Your task to perform on an android device: Go to display settings Image 0: 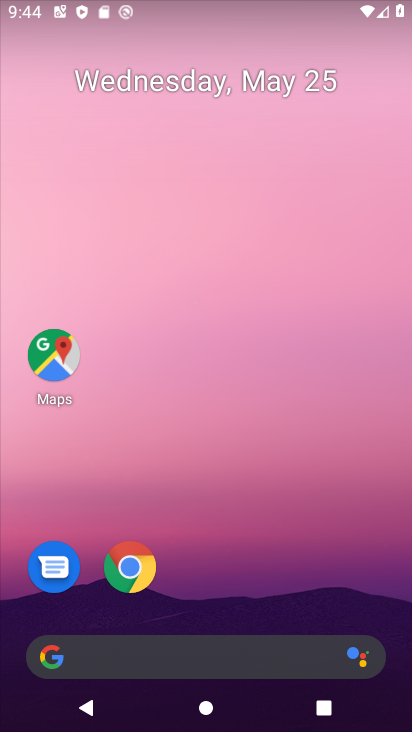
Step 0: drag from (328, 588) to (363, 23)
Your task to perform on an android device: Go to display settings Image 1: 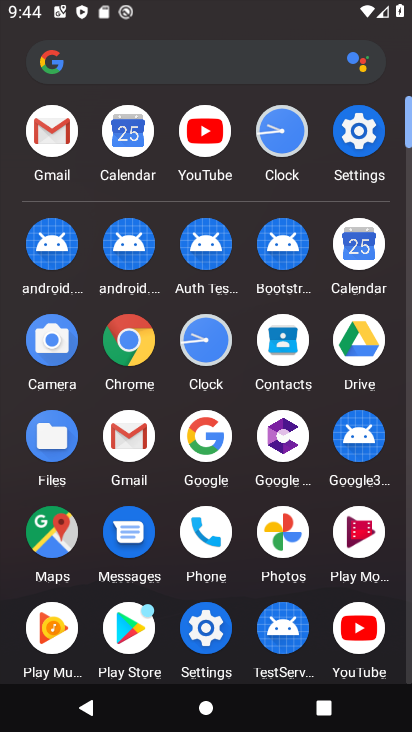
Step 1: click (384, 149)
Your task to perform on an android device: Go to display settings Image 2: 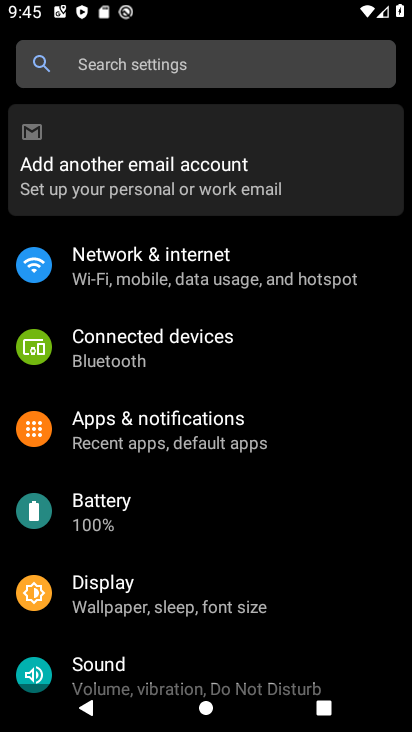
Step 2: click (144, 550)
Your task to perform on an android device: Go to display settings Image 3: 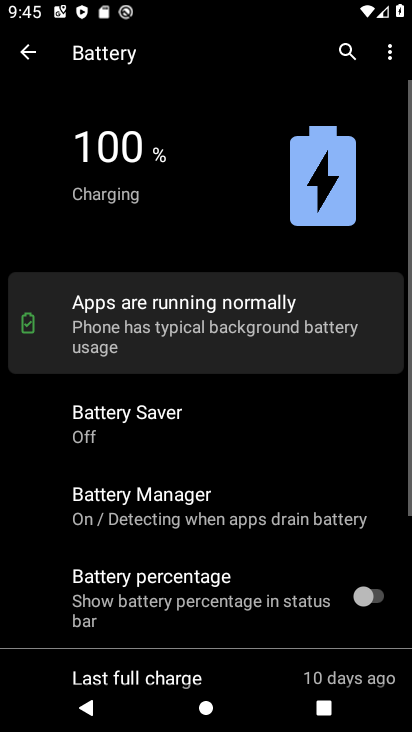
Step 3: task complete